Your task to perform on an android device: toggle airplane mode Image 0: 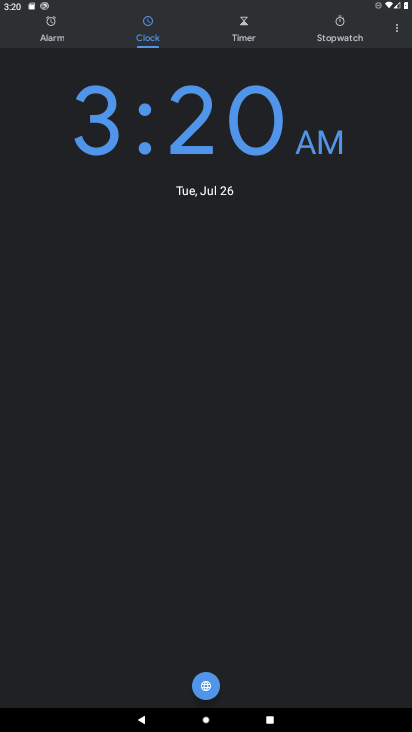
Step 0: press home button
Your task to perform on an android device: toggle airplane mode Image 1: 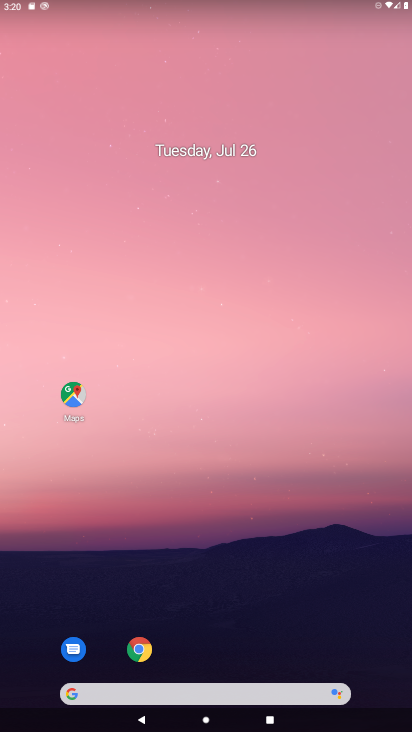
Step 1: drag from (206, 688) to (231, 18)
Your task to perform on an android device: toggle airplane mode Image 2: 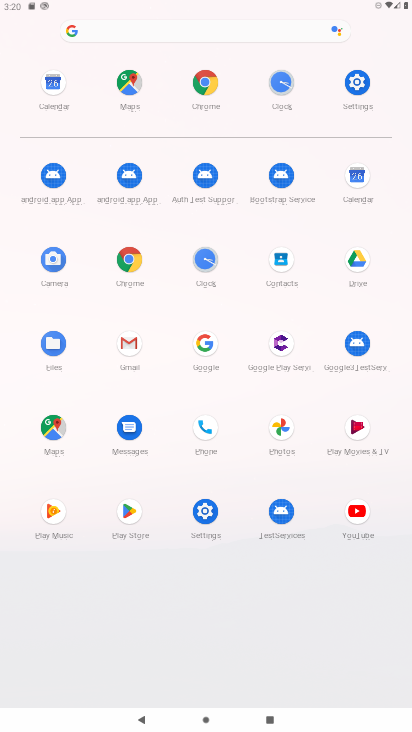
Step 2: click (205, 498)
Your task to perform on an android device: toggle airplane mode Image 3: 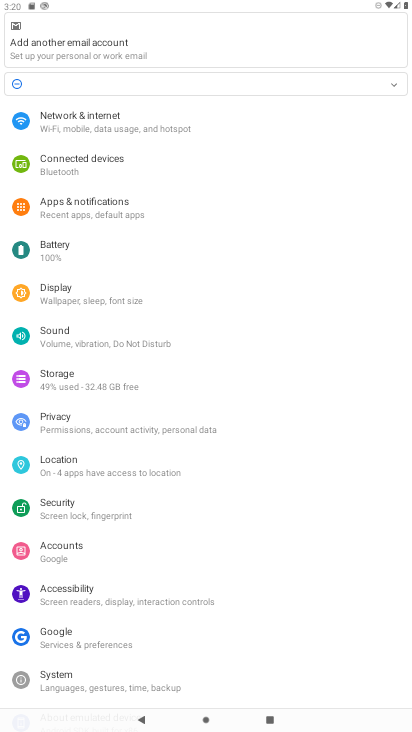
Step 3: click (111, 119)
Your task to perform on an android device: toggle airplane mode Image 4: 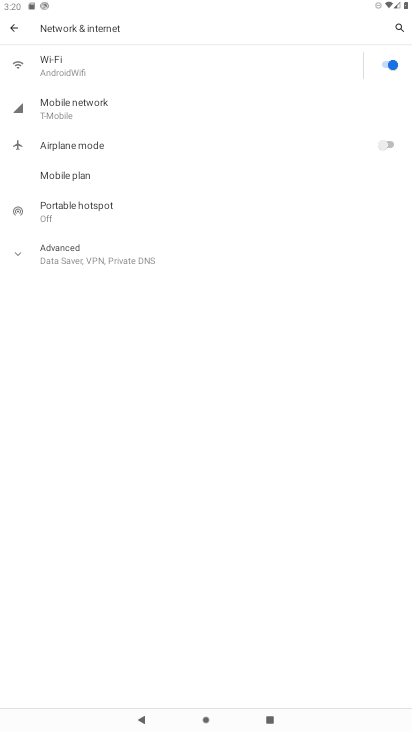
Step 4: click (73, 266)
Your task to perform on an android device: toggle airplane mode Image 5: 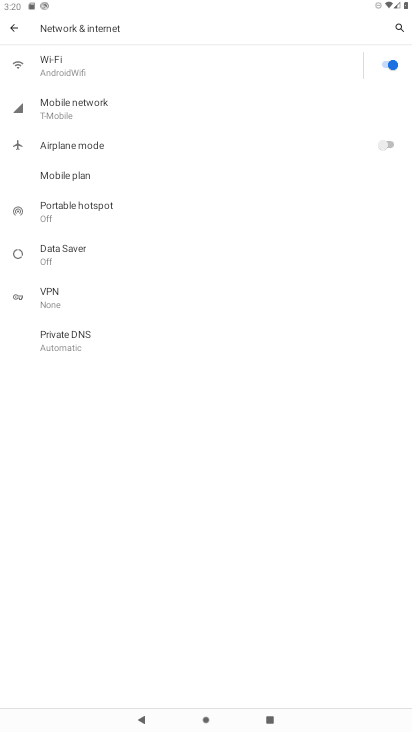
Step 5: click (390, 148)
Your task to perform on an android device: toggle airplane mode Image 6: 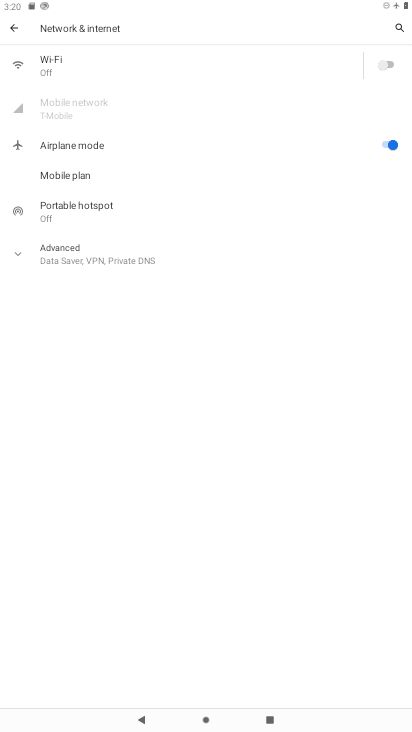
Step 6: task complete